Your task to perform on an android device: Check the news Image 0: 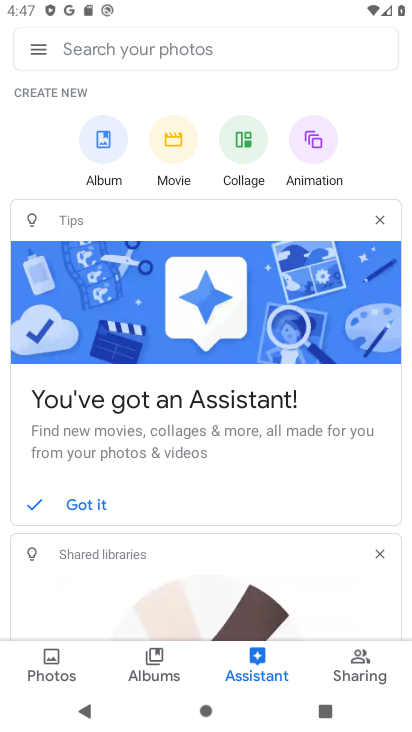
Step 0: press home button
Your task to perform on an android device: Check the news Image 1: 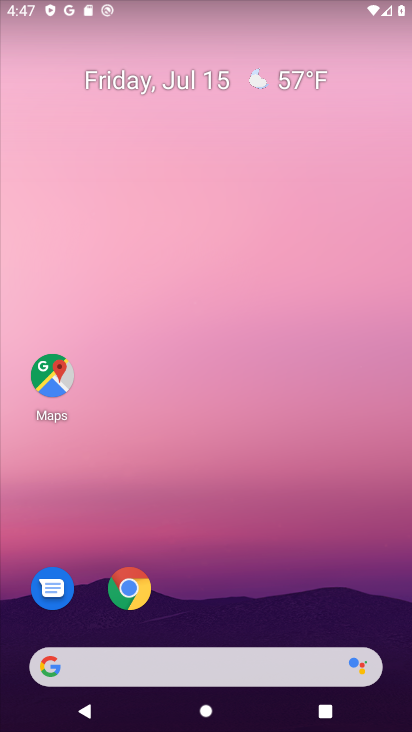
Step 1: drag from (211, 615) to (224, 402)
Your task to perform on an android device: Check the news Image 2: 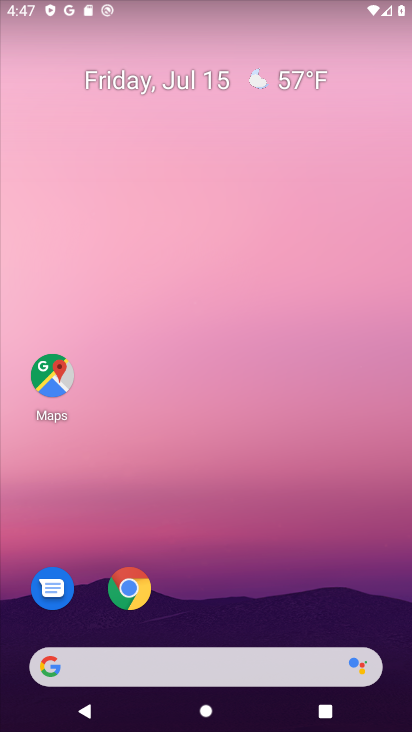
Step 2: drag from (244, 598) to (360, 88)
Your task to perform on an android device: Check the news Image 3: 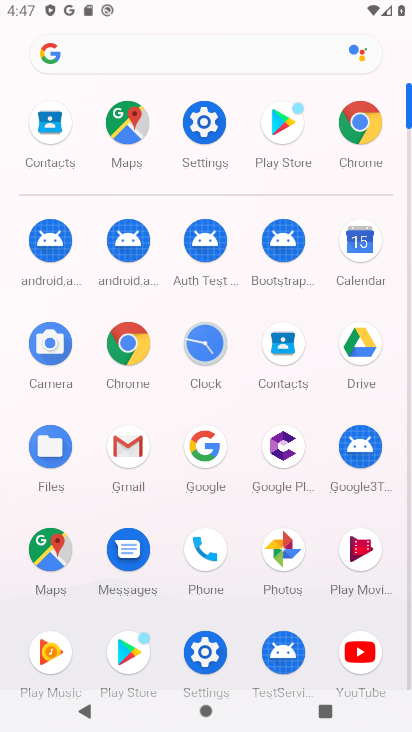
Step 3: click (126, 345)
Your task to perform on an android device: Check the news Image 4: 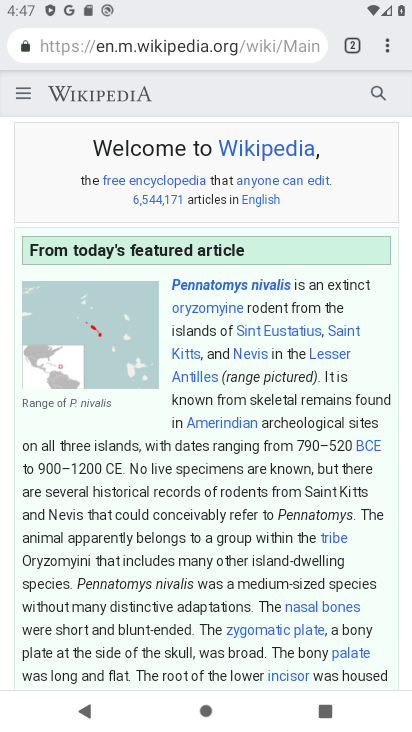
Step 4: click (271, 42)
Your task to perform on an android device: Check the news Image 5: 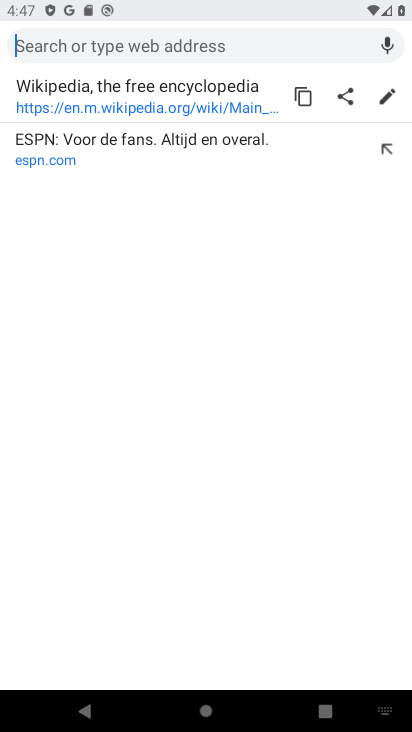
Step 5: type "Check the news"
Your task to perform on an android device: Check the news Image 6: 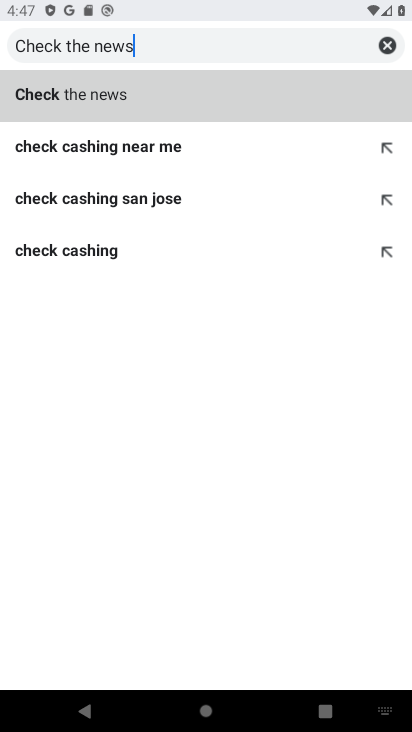
Step 6: type ""
Your task to perform on an android device: Check the news Image 7: 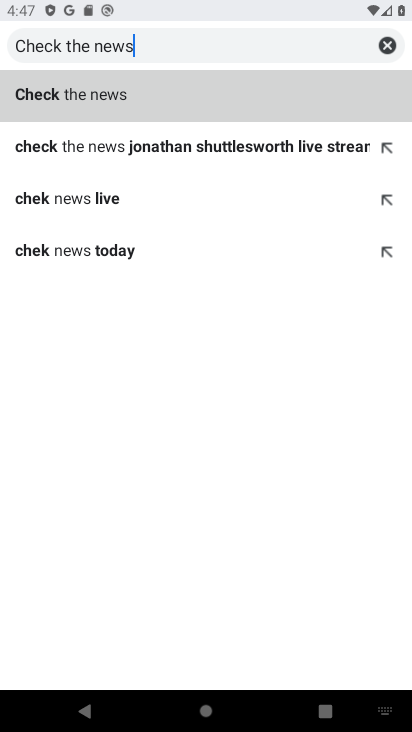
Step 7: click (52, 97)
Your task to perform on an android device: Check the news Image 8: 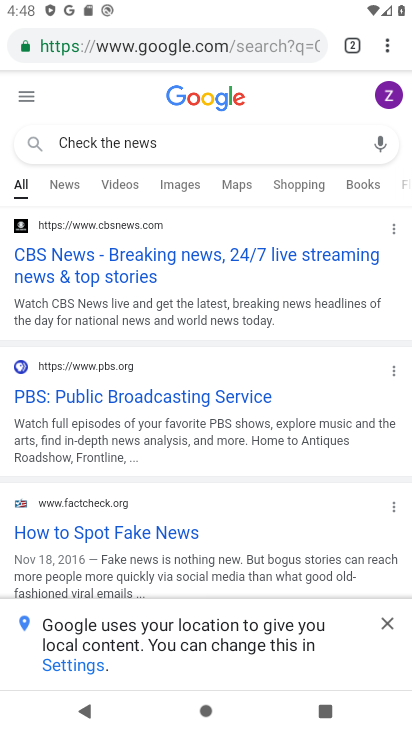
Step 8: click (75, 190)
Your task to perform on an android device: Check the news Image 9: 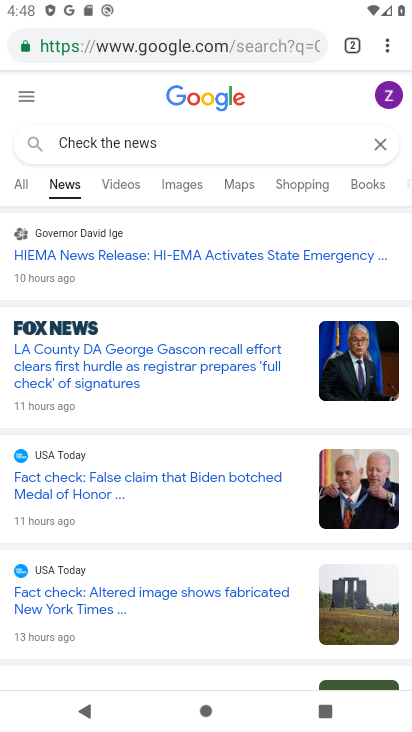
Step 9: task complete